Your task to perform on an android device: Go to display settings Image 0: 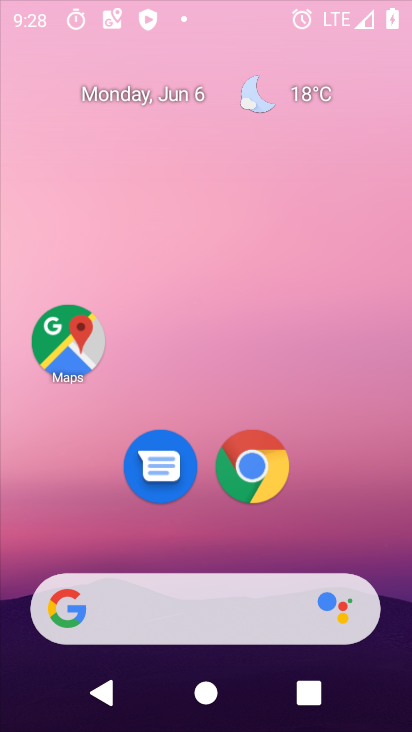
Step 0: click (234, 101)
Your task to perform on an android device: Go to display settings Image 1: 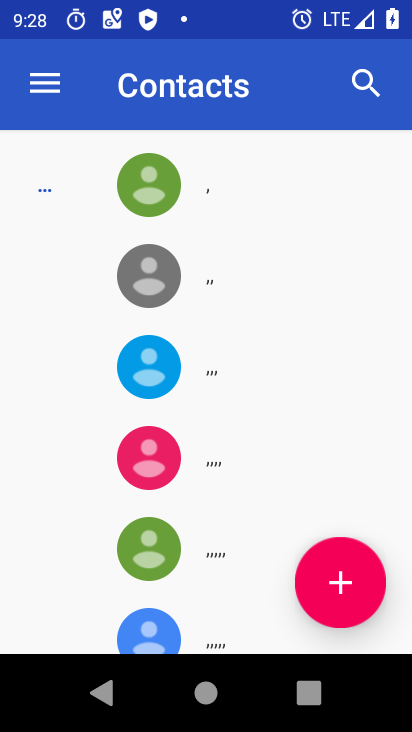
Step 1: press home button
Your task to perform on an android device: Go to display settings Image 2: 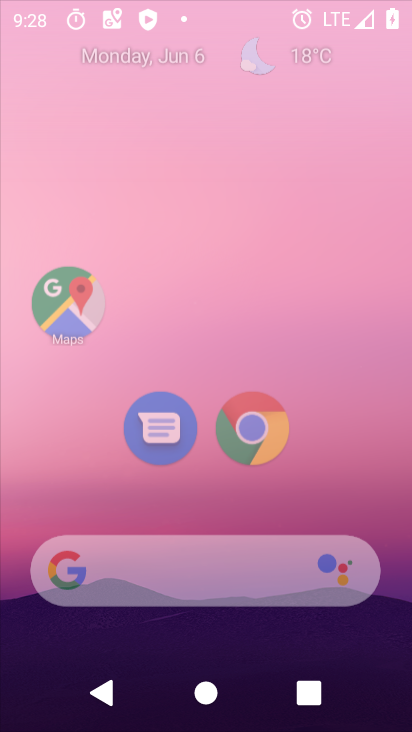
Step 2: drag from (250, 517) to (330, 65)
Your task to perform on an android device: Go to display settings Image 3: 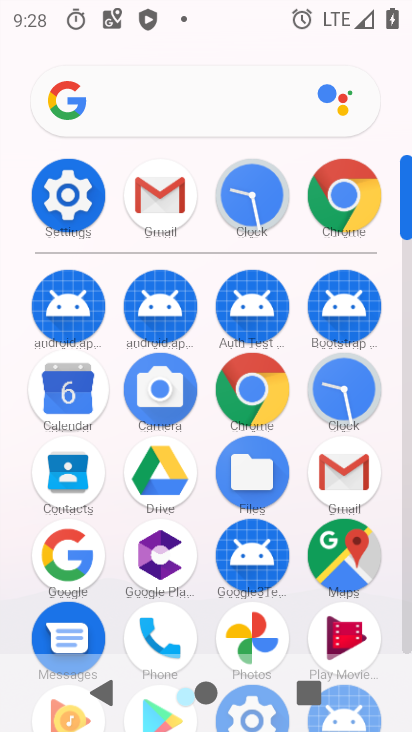
Step 3: click (73, 198)
Your task to perform on an android device: Go to display settings Image 4: 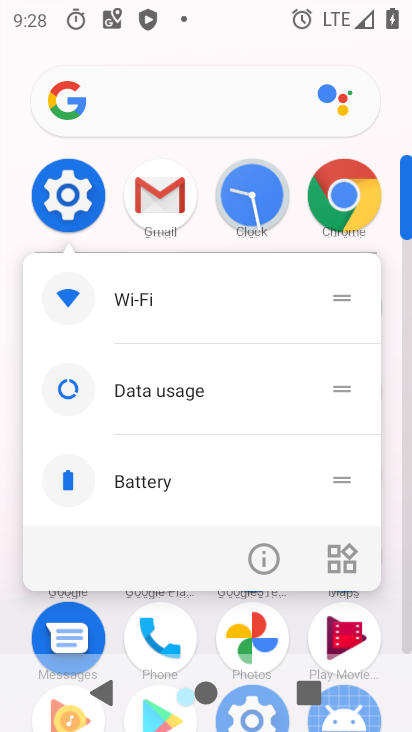
Step 4: click (264, 546)
Your task to perform on an android device: Go to display settings Image 5: 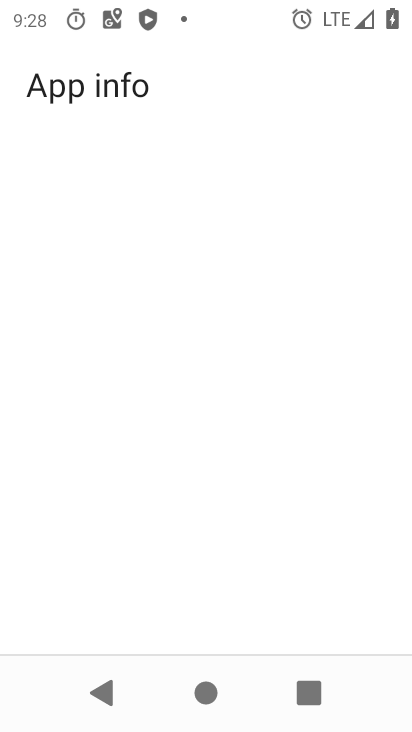
Step 5: drag from (249, 510) to (346, 39)
Your task to perform on an android device: Go to display settings Image 6: 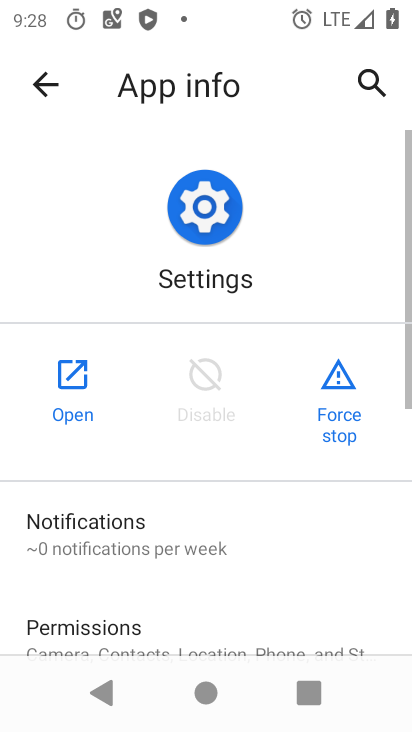
Step 6: click (83, 387)
Your task to perform on an android device: Go to display settings Image 7: 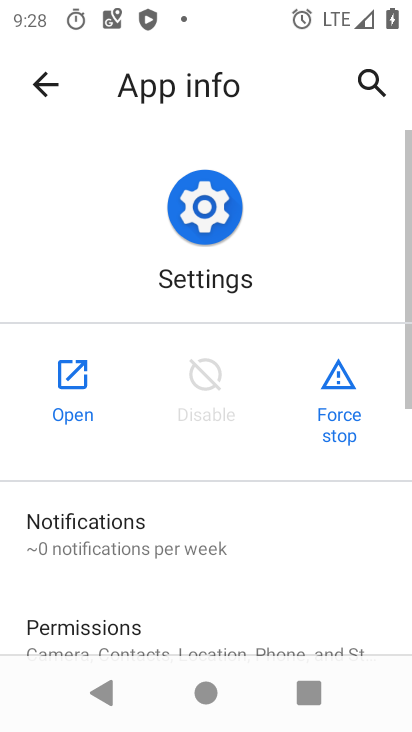
Step 7: drag from (205, 513) to (343, 2)
Your task to perform on an android device: Go to display settings Image 8: 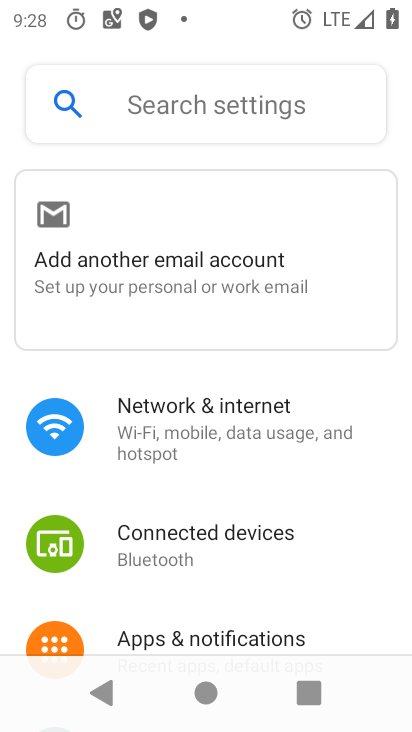
Step 8: drag from (176, 504) to (243, 5)
Your task to perform on an android device: Go to display settings Image 9: 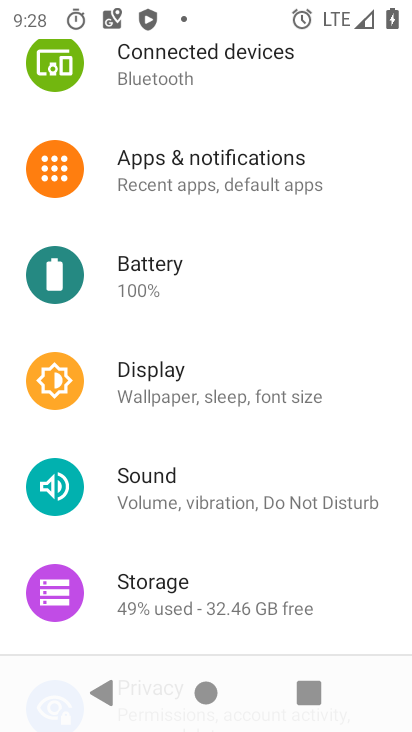
Step 9: click (190, 412)
Your task to perform on an android device: Go to display settings Image 10: 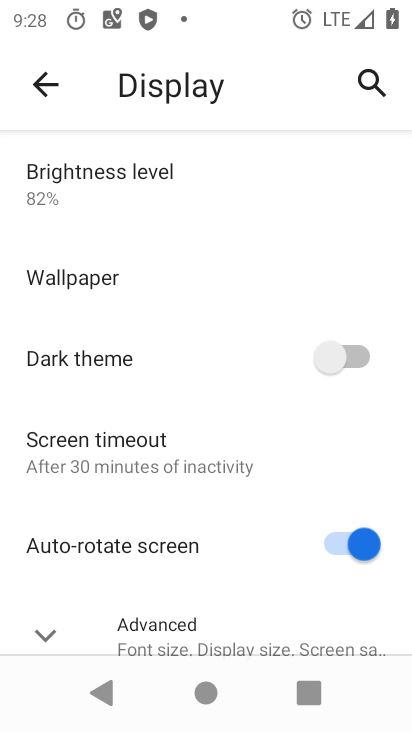
Step 10: task complete